Your task to perform on an android device: open a bookmark in the chrome app Image 0: 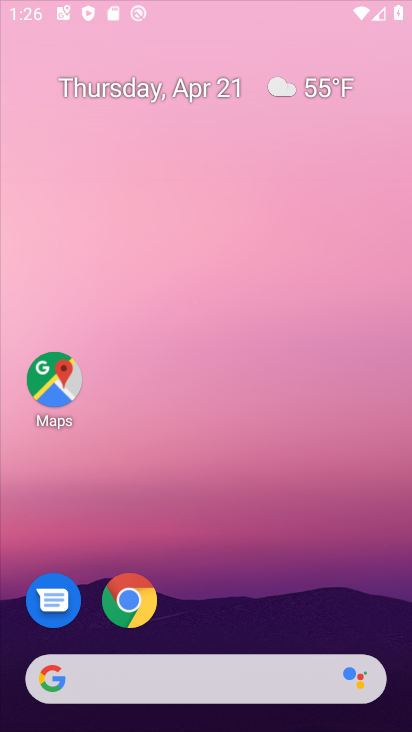
Step 0: click (156, 215)
Your task to perform on an android device: open a bookmark in the chrome app Image 1: 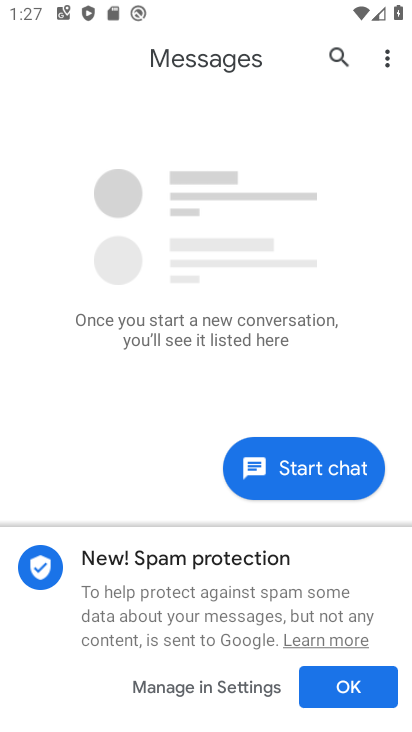
Step 1: press home button
Your task to perform on an android device: open a bookmark in the chrome app Image 2: 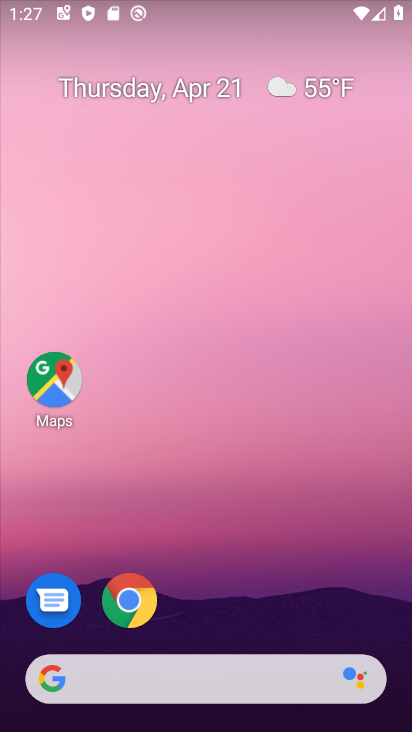
Step 2: click (118, 616)
Your task to perform on an android device: open a bookmark in the chrome app Image 3: 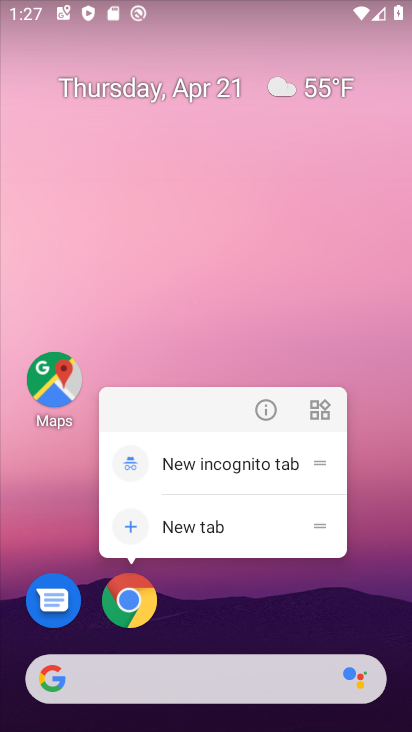
Step 3: click (123, 608)
Your task to perform on an android device: open a bookmark in the chrome app Image 4: 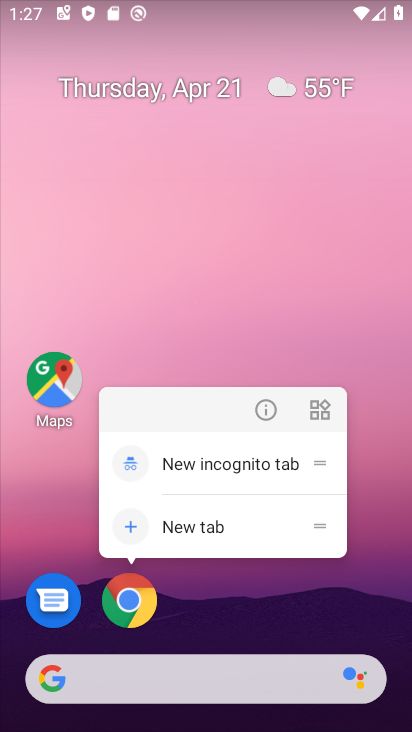
Step 4: click (138, 597)
Your task to perform on an android device: open a bookmark in the chrome app Image 5: 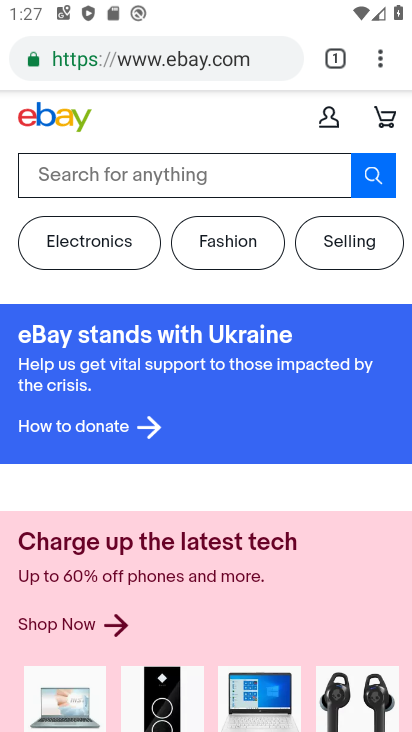
Step 5: task complete